Your task to perform on an android device: toggle sleep mode Image 0: 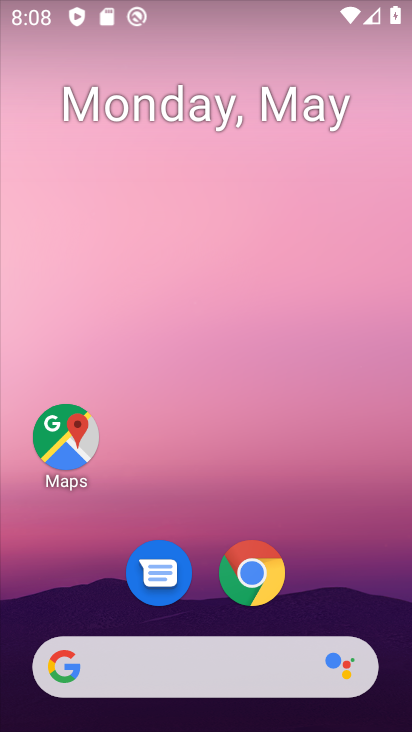
Step 0: drag from (71, 616) to (199, 137)
Your task to perform on an android device: toggle sleep mode Image 1: 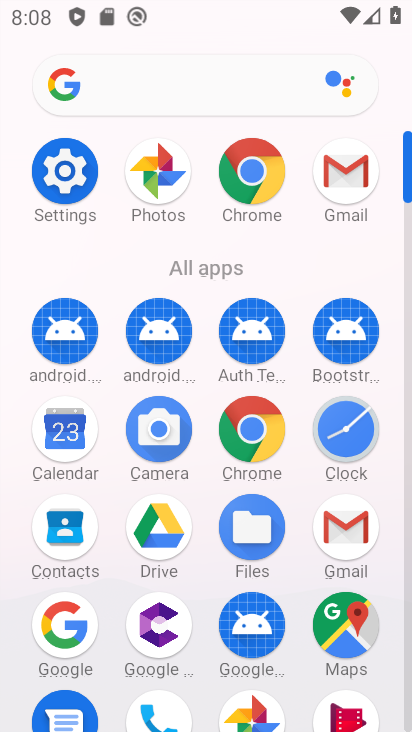
Step 1: drag from (165, 582) to (217, 227)
Your task to perform on an android device: toggle sleep mode Image 2: 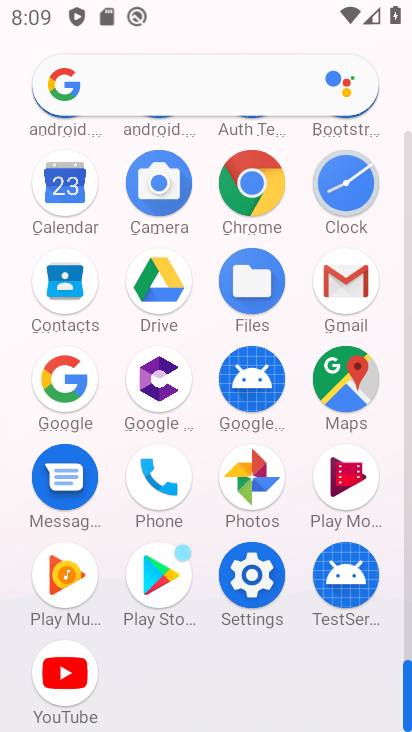
Step 2: click (241, 576)
Your task to perform on an android device: toggle sleep mode Image 3: 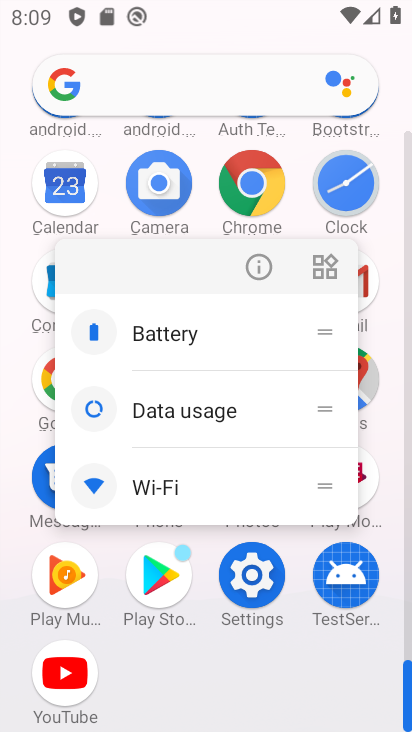
Step 3: click (240, 556)
Your task to perform on an android device: toggle sleep mode Image 4: 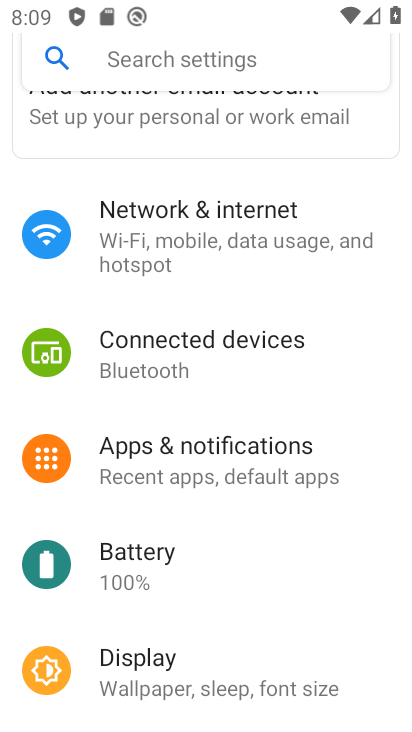
Step 4: click (173, 667)
Your task to perform on an android device: toggle sleep mode Image 5: 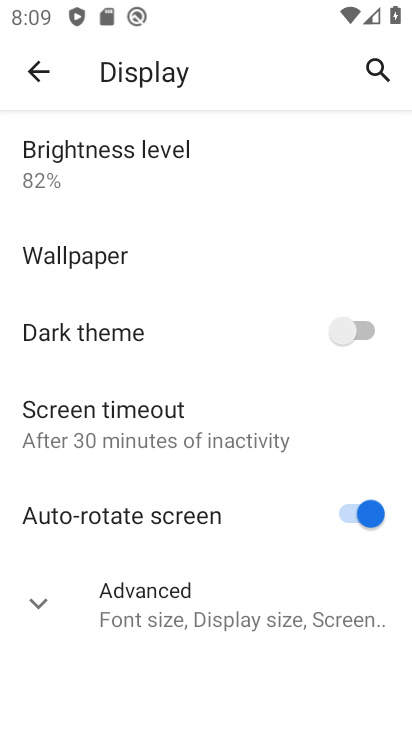
Step 5: click (203, 610)
Your task to perform on an android device: toggle sleep mode Image 6: 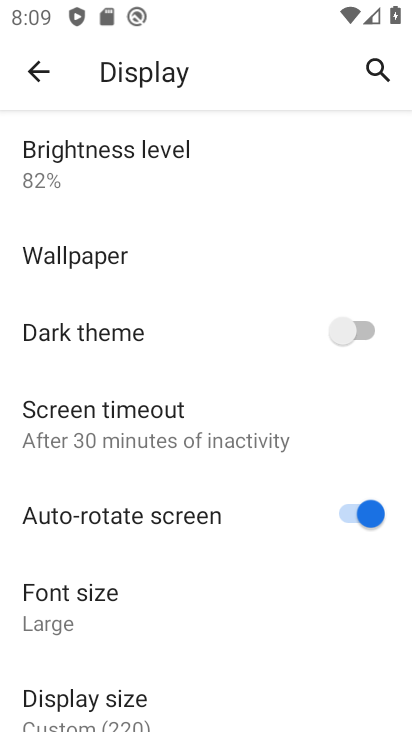
Step 6: task complete